Your task to perform on an android device: refresh tabs in the chrome app Image 0: 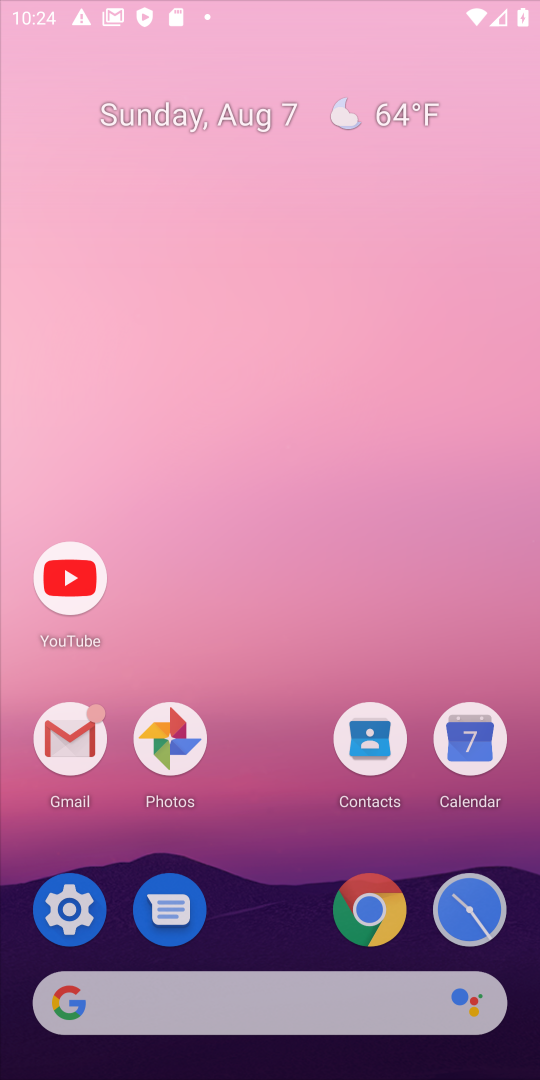
Step 0: click (369, 913)
Your task to perform on an android device: refresh tabs in the chrome app Image 1: 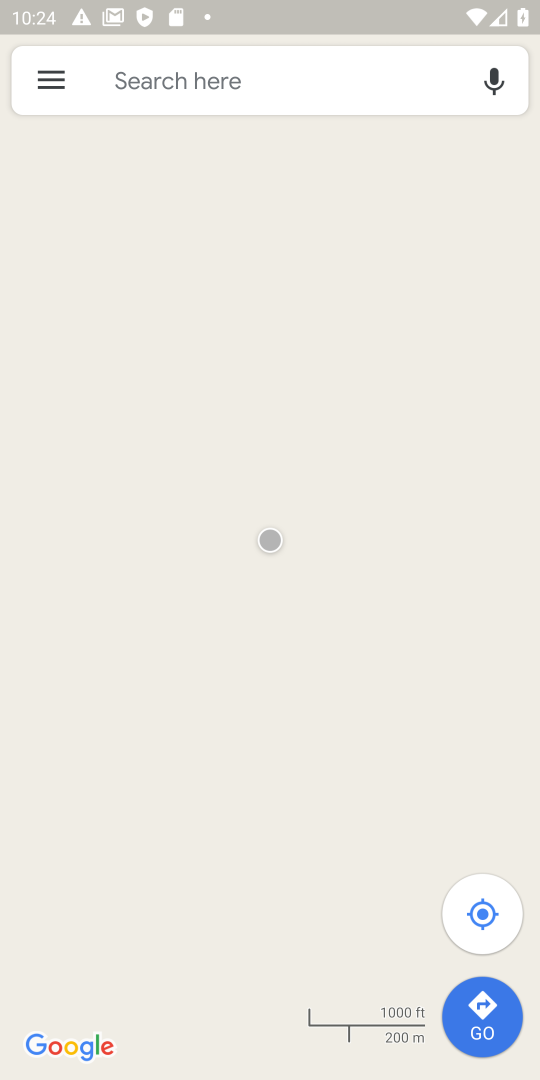
Step 1: press home button
Your task to perform on an android device: refresh tabs in the chrome app Image 2: 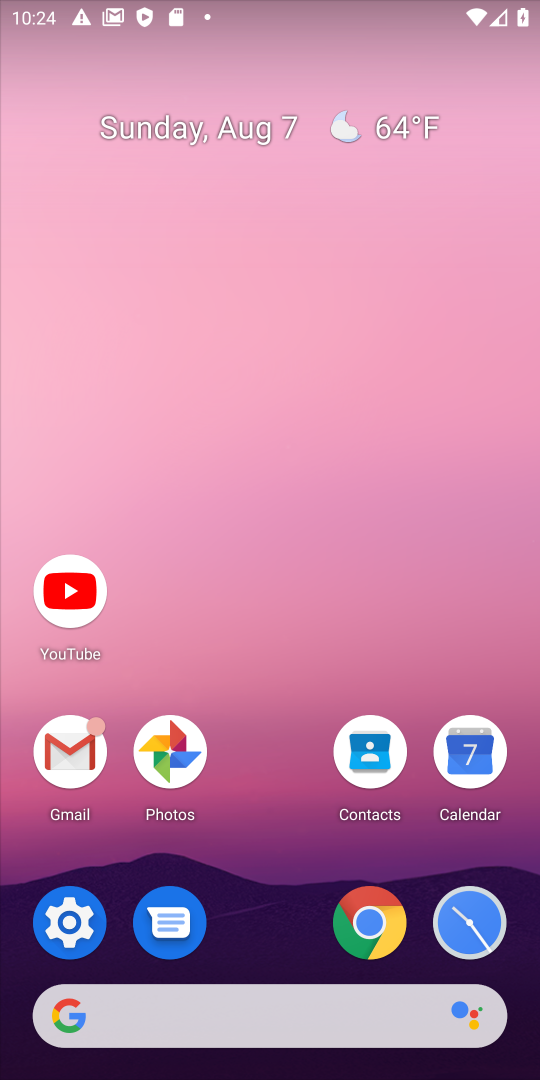
Step 2: click (365, 931)
Your task to perform on an android device: refresh tabs in the chrome app Image 3: 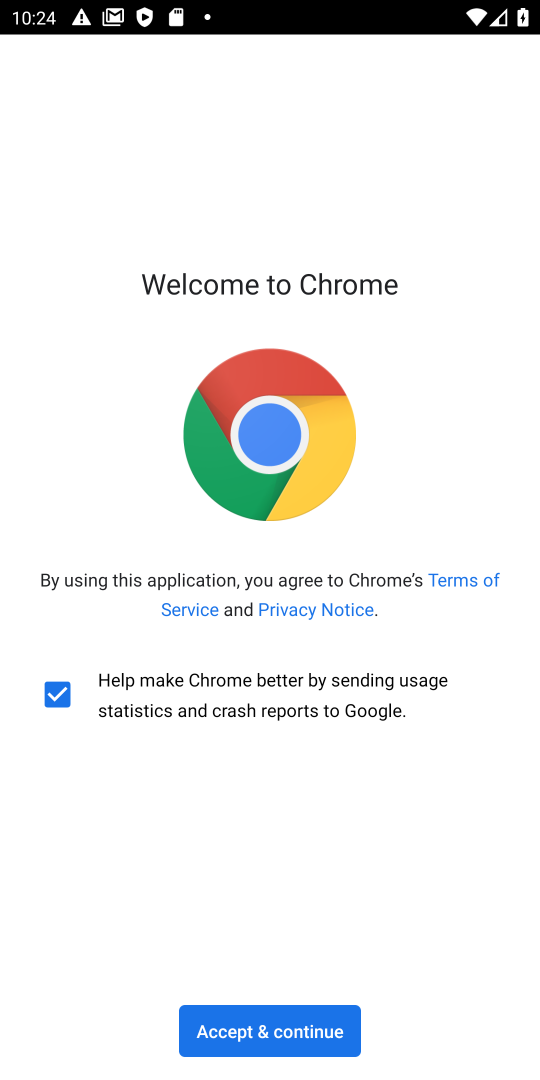
Step 3: click (282, 1021)
Your task to perform on an android device: refresh tabs in the chrome app Image 4: 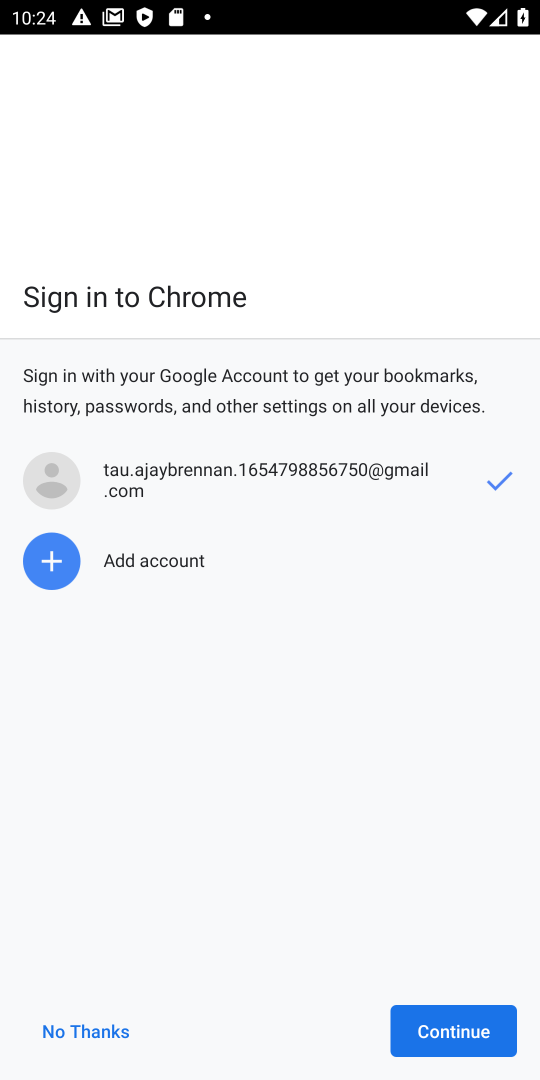
Step 4: click (493, 1038)
Your task to perform on an android device: refresh tabs in the chrome app Image 5: 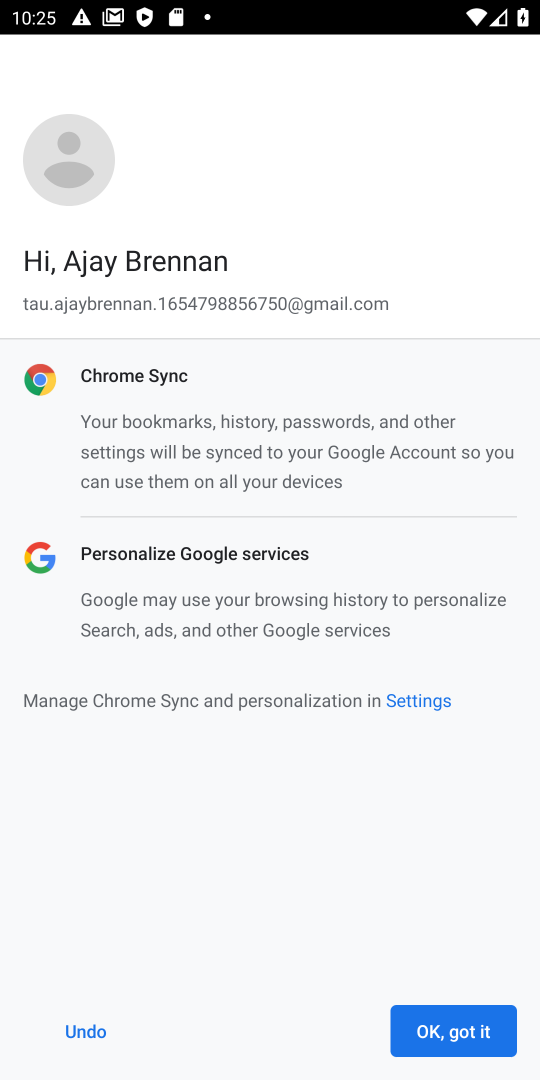
Step 5: click (467, 1039)
Your task to perform on an android device: refresh tabs in the chrome app Image 6: 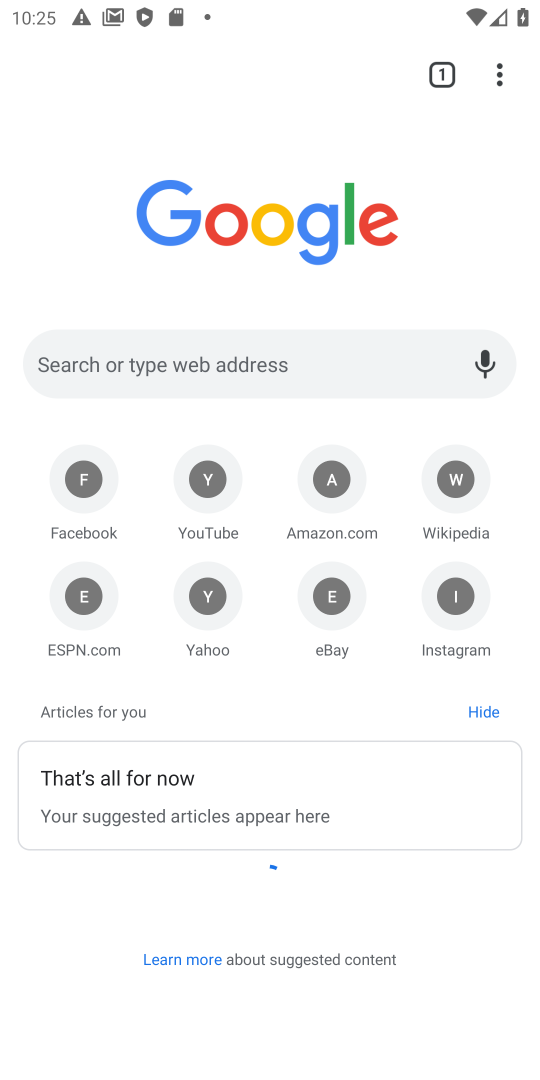
Step 6: click (502, 81)
Your task to perform on an android device: refresh tabs in the chrome app Image 7: 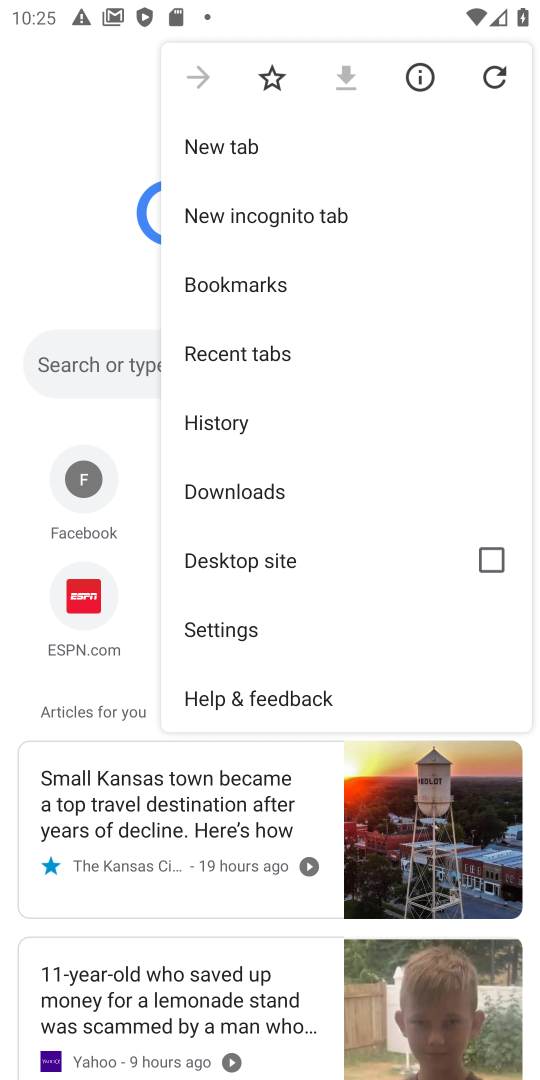
Step 7: click (493, 69)
Your task to perform on an android device: refresh tabs in the chrome app Image 8: 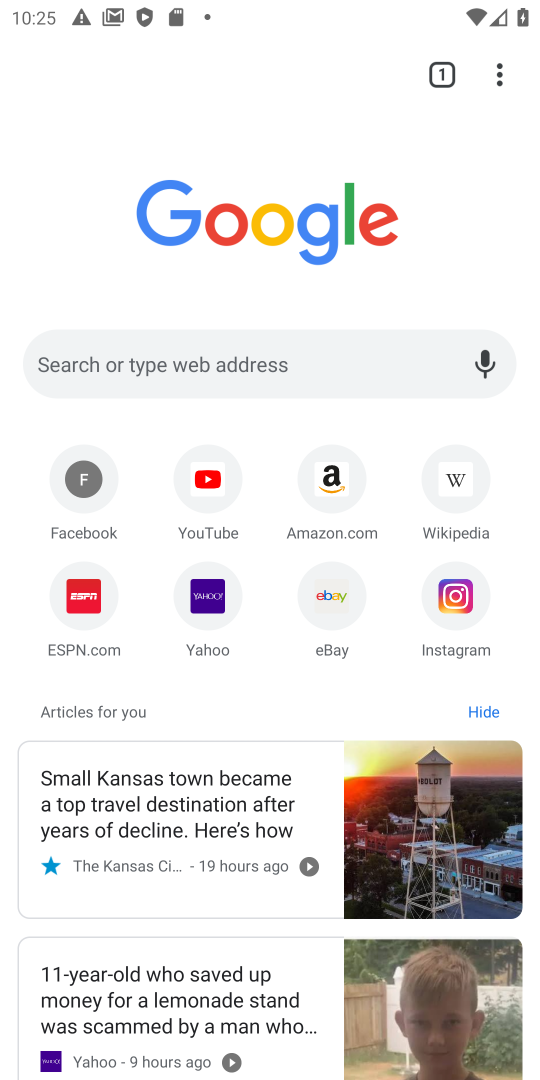
Step 8: task complete